Your task to perform on an android device: see sites visited before in the chrome app Image 0: 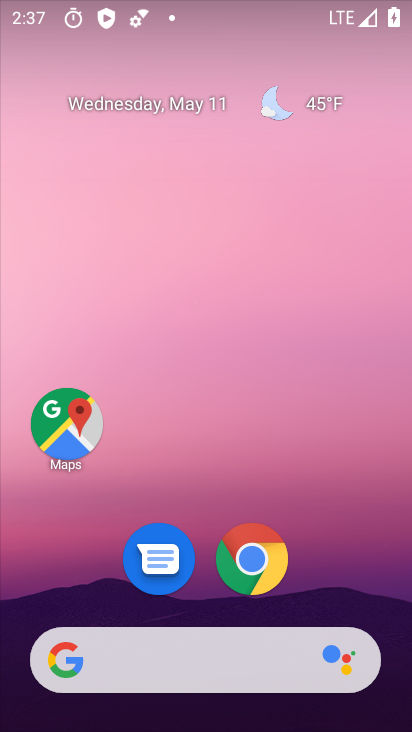
Step 0: click (258, 558)
Your task to perform on an android device: see sites visited before in the chrome app Image 1: 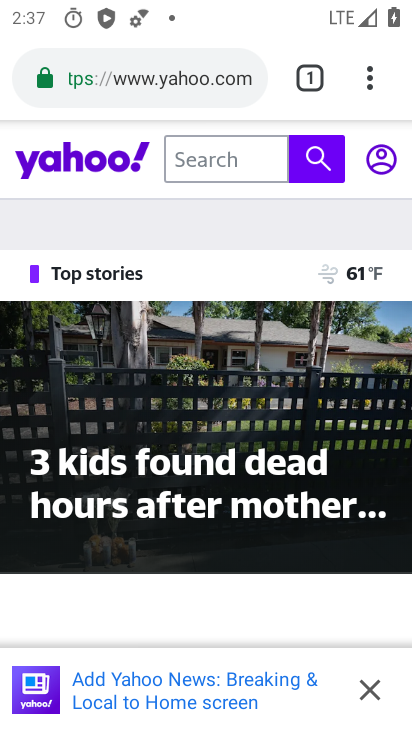
Step 1: click (361, 77)
Your task to perform on an android device: see sites visited before in the chrome app Image 2: 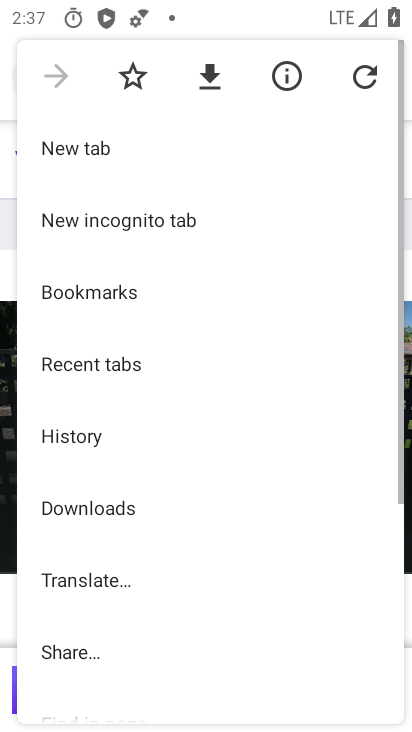
Step 2: click (92, 433)
Your task to perform on an android device: see sites visited before in the chrome app Image 3: 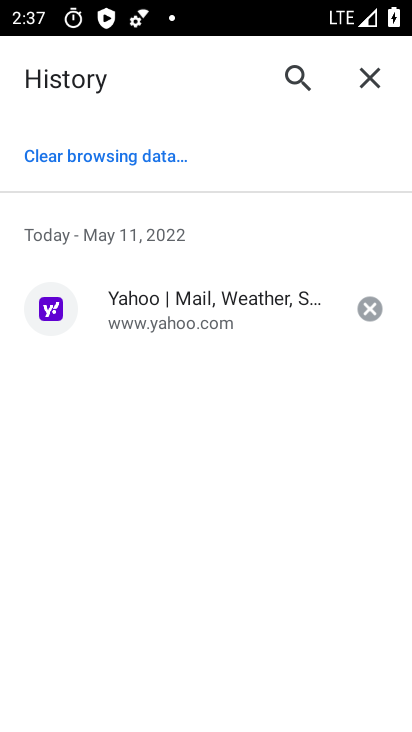
Step 3: task complete